Your task to perform on an android device: change the clock display to digital Image 0: 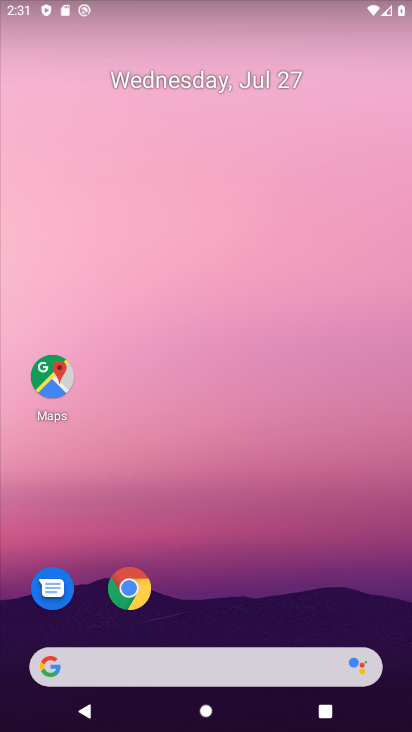
Step 0: drag from (258, 711) to (150, 199)
Your task to perform on an android device: change the clock display to digital Image 1: 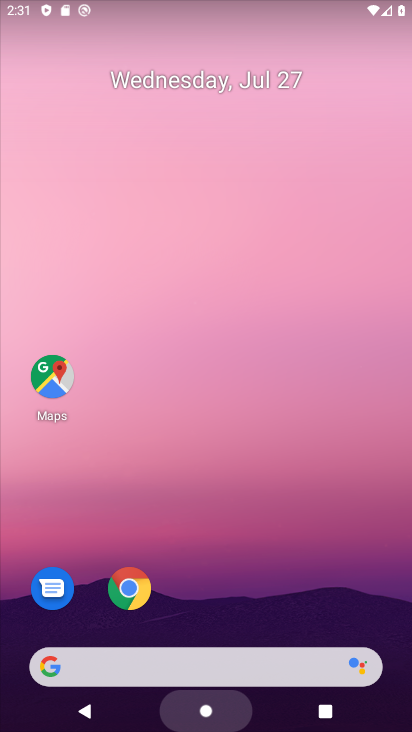
Step 1: drag from (178, 630) to (118, 112)
Your task to perform on an android device: change the clock display to digital Image 2: 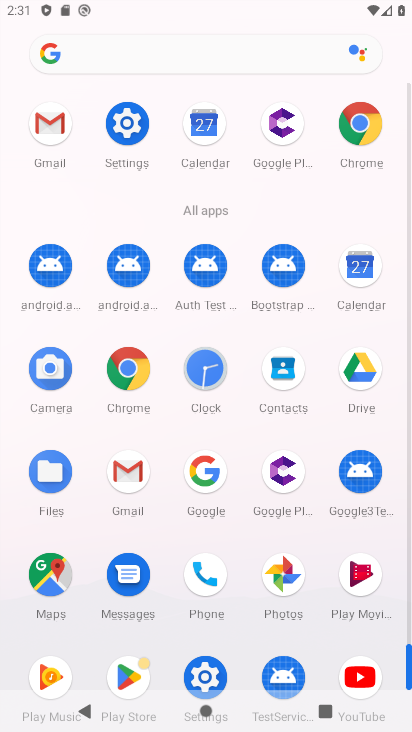
Step 2: drag from (139, 560) to (187, 270)
Your task to perform on an android device: change the clock display to digital Image 3: 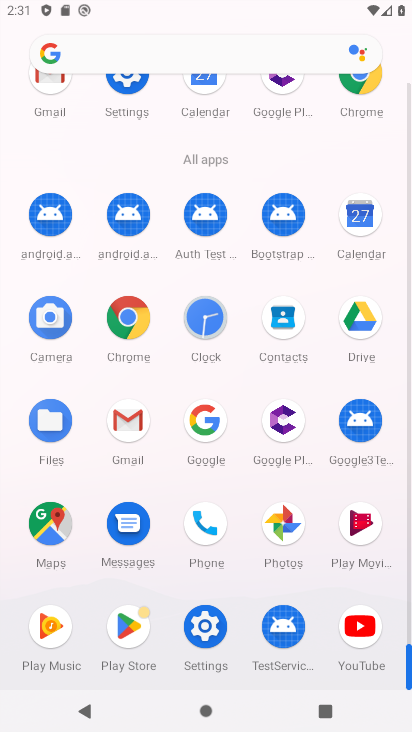
Step 3: click (212, 312)
Your task to perform on an android device: change the clock display to digital Image 4: 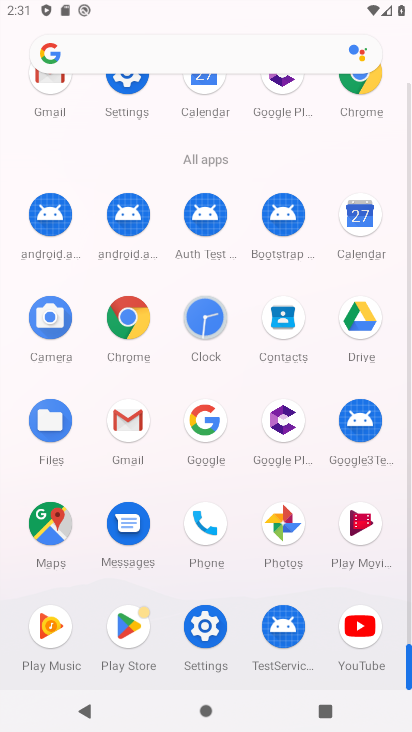
Step 4: click (206, 314)
Your task to perform on an android device: change the clock display to digital Image 5: 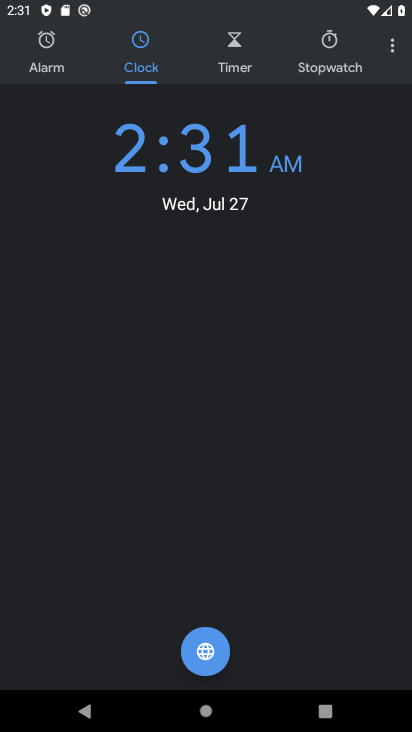
Step 5: click (388, 45)
Your task to perform on an android device: change the clock display to digital Image 6: 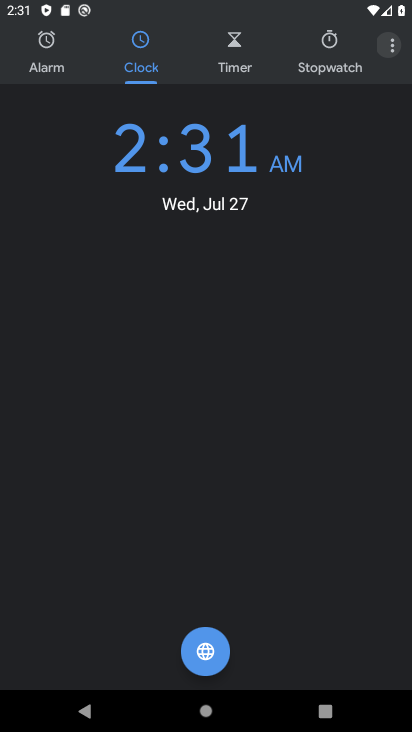
Step 6: click (388, 45)
Your task to perform on an android device: change the clock display to digital Image 7: 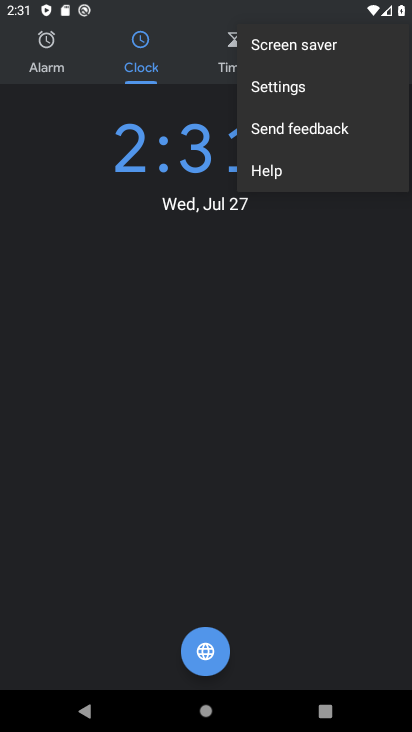
Step 7: click (265, 74)
Your task to perform on an android device: change the clock display to digital Image 8: 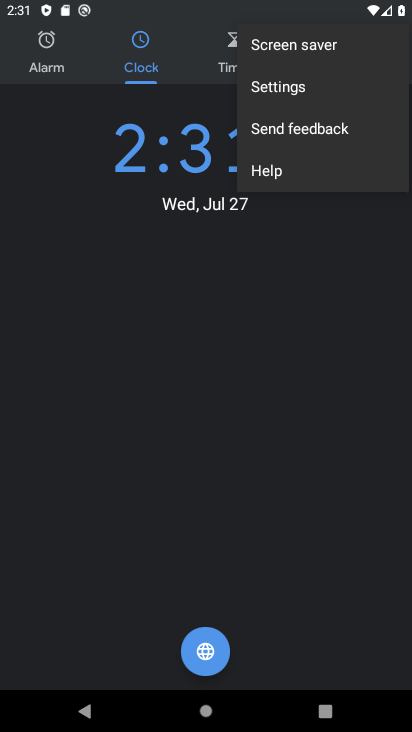
Step 8: click (266, 74)
Your task to perform on an android device: change the clock display to digital Image 9: 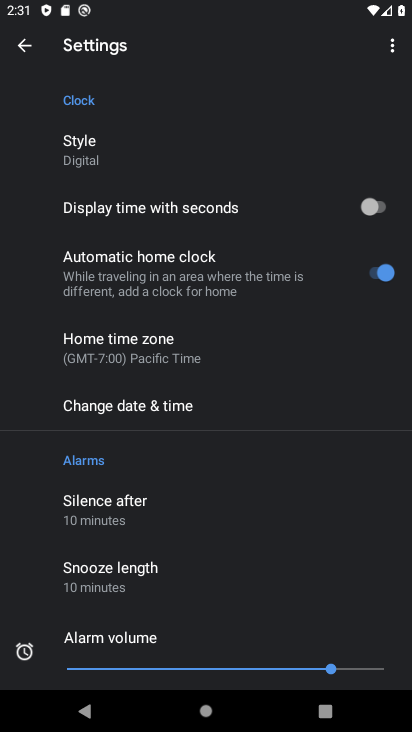
Step 9: click (83, 152)
Your task to perform on an android device: change the clock display to digital Image 10: 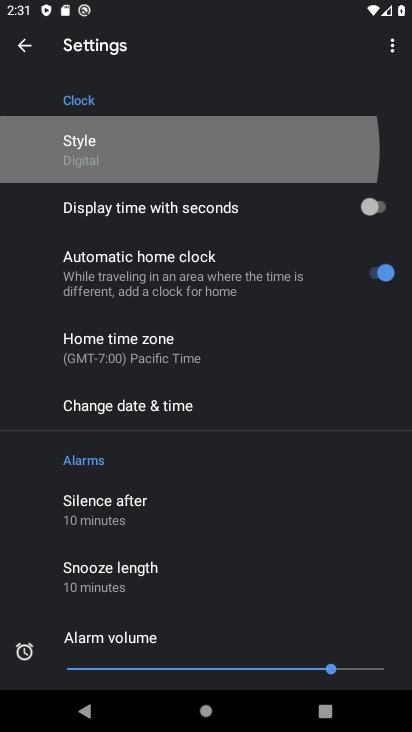
Step 10: click (76, 155)
Your task to perform on an android device: change the clock display to digital Image 11: 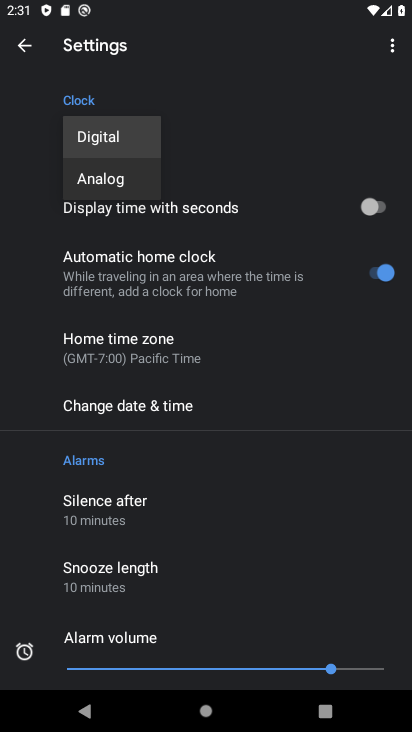
Step 11: click (107, 130)
Your task to perform on an android device: change the clock display to digital Image 12: 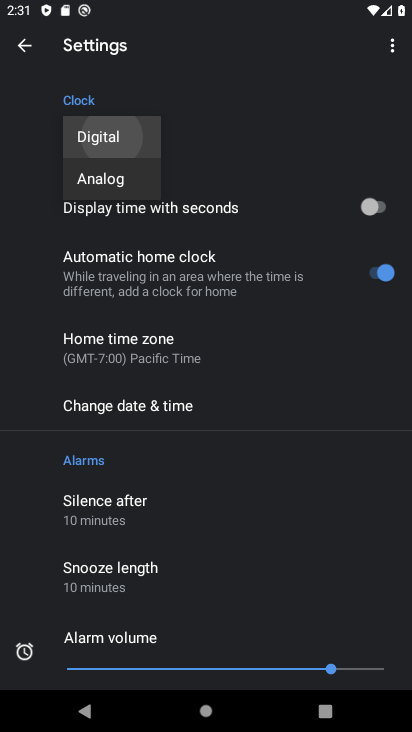
Step 12: click (108, 129)
Your task to perform on an android device: change the clock display to digital Image 13: 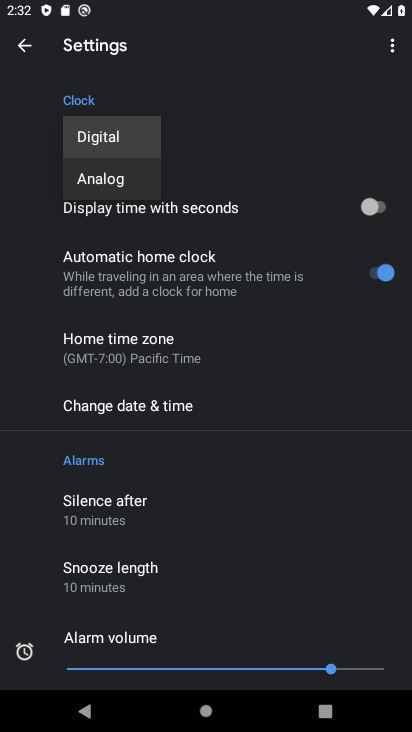
Step 13: task complete